Your task to perform on an android device: Open the web browser Image 0: 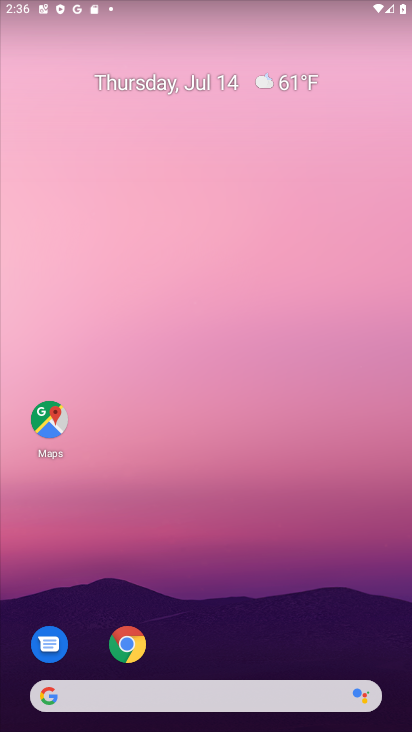
Step 0: drag from (344, 533) to (347, 79)
Your task to perform on an android device: Open the web browser Image 1: 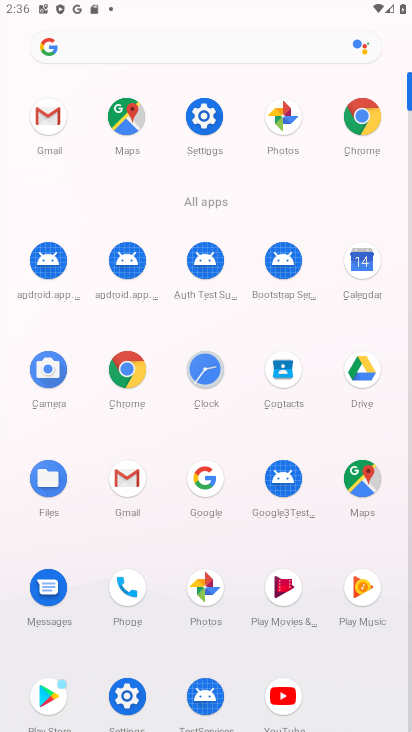
Step 1: click (362, 127)
Your task to perform on an android device: Open the web browser Image 2: 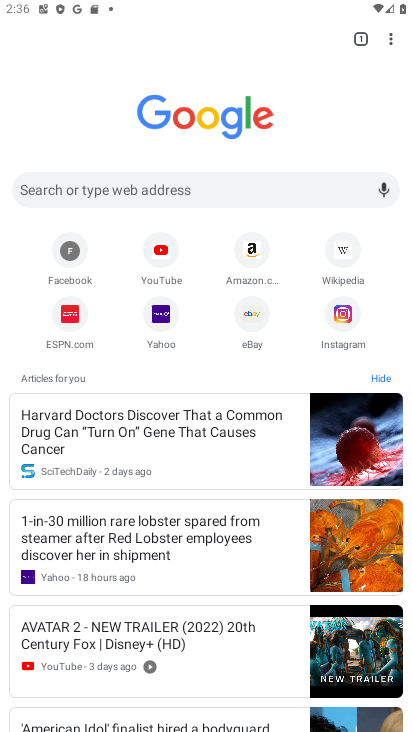
Step 2: task complete